Your task to perform on an android device: Open Youtube and go to "Your channel" Image 0: 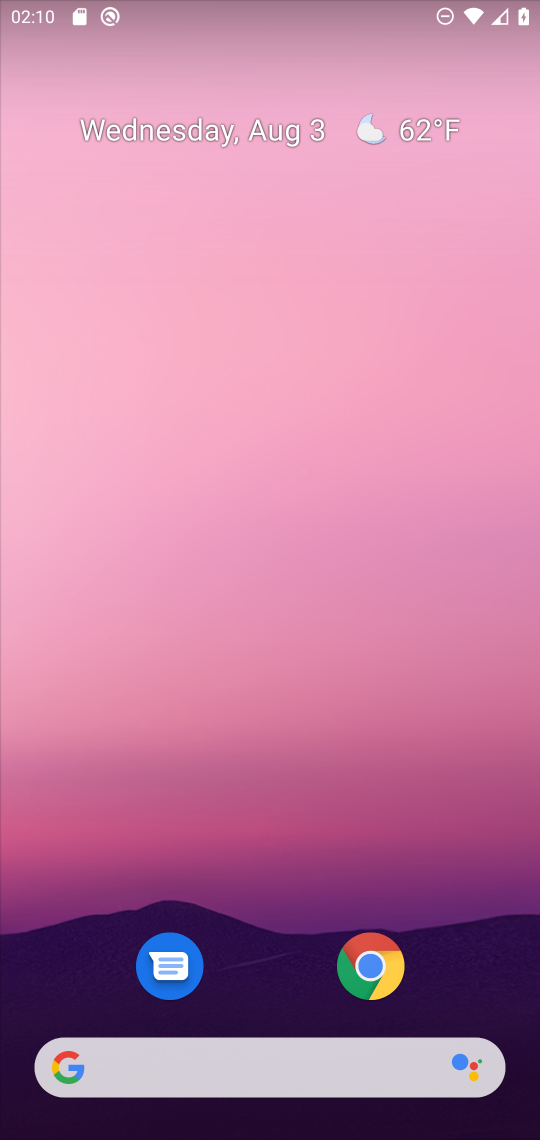
Step 0: drag from (263, 827) to (263, 436)
Your task to perform on an android device: Open Youtube and go to "Your channel" Image 1: 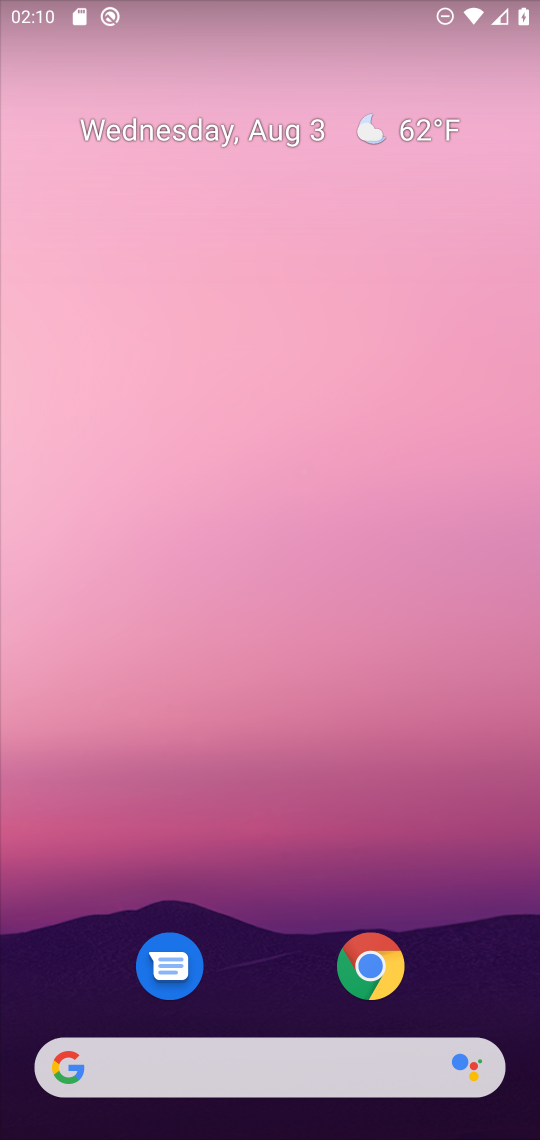
Step 1: drag from (265, 967) to (274, 343)
Your task to perform on an android device: Open Youtube and go to "Your channel" Image 2: 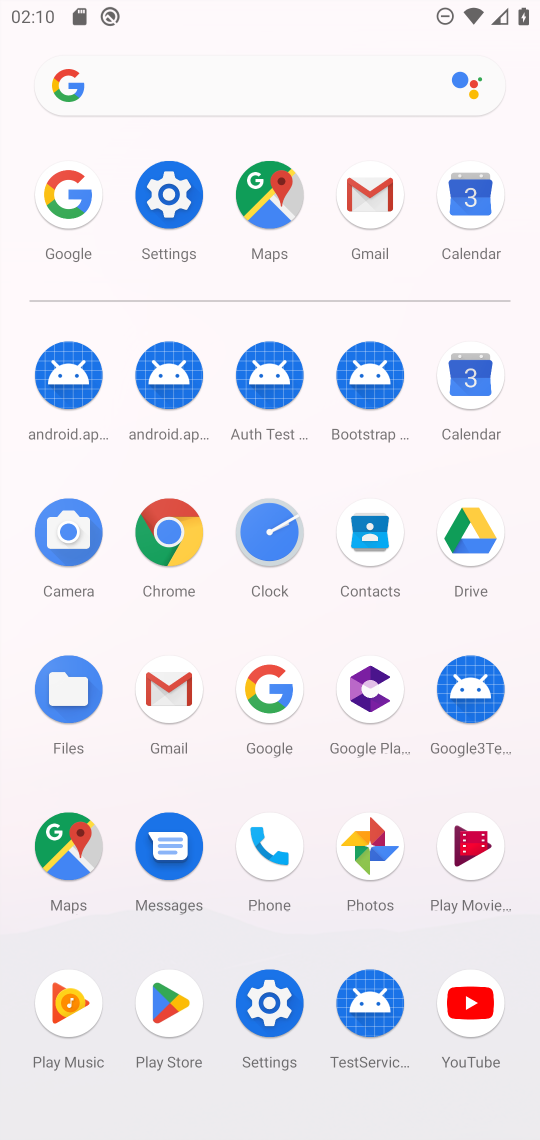
Step 2: click (470, 1028)
Your task to perform on an android device: Open Youtube and go to "Your channel" Image 3: 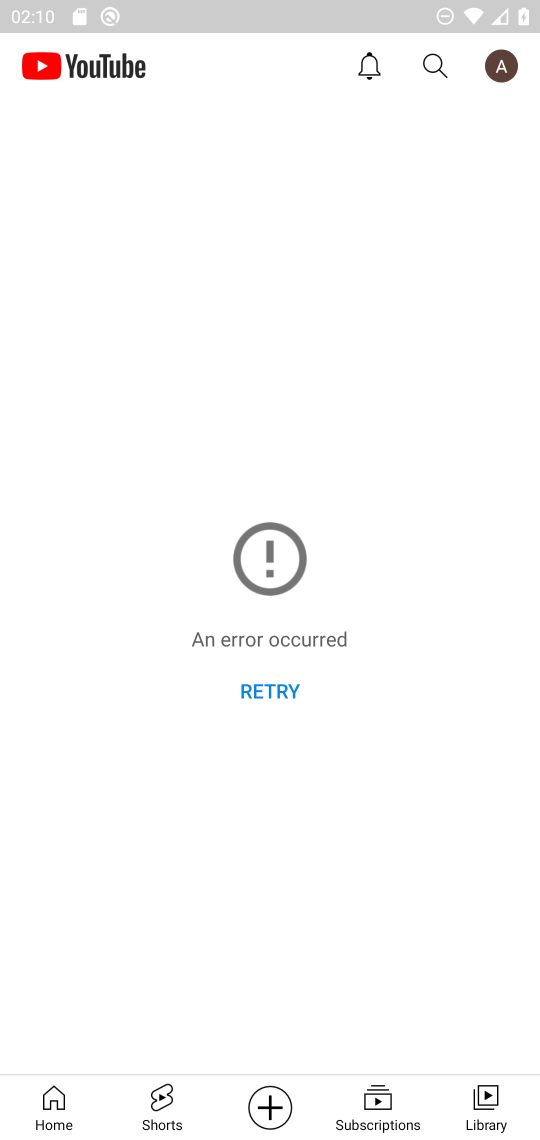
Step 3: click (512, 61)
Your task to perform on an android device: Open Youtube and go to "Your channel" Image 4: 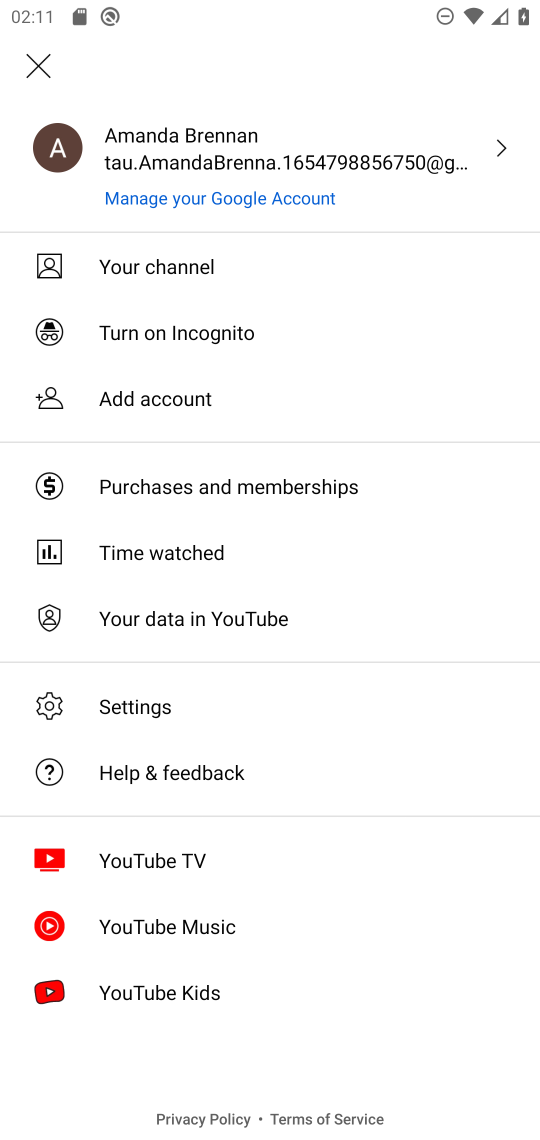
Step 4: click (213, 261)
Your task to perform on an android device: Open Youtube and go to "Your channel" Image 5: 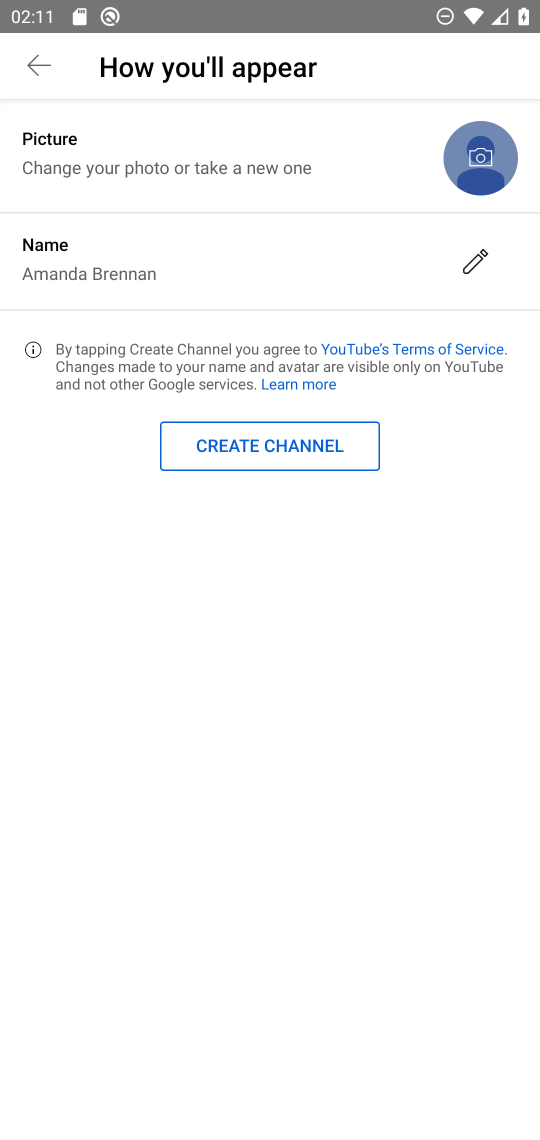
Step 5: task complete